Your task to perform on an android device: Search for Italian restaurants on Maps Image 0: 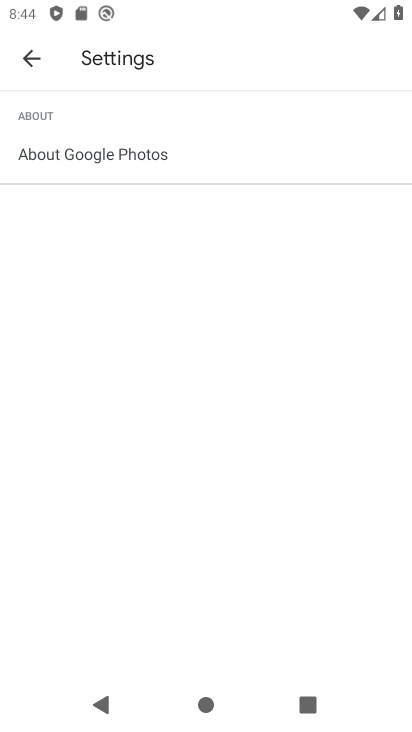
Step 0: press home button
Your task to perform on an android device: Search for Italian restaurants on Maps Image 1: 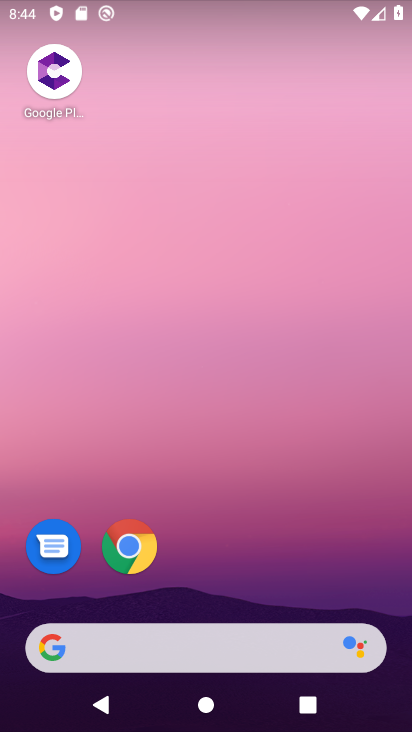
Step 1: drag from (187, 624) to (177, 202)
Your task to perform on an android device: Search for Italian restaurants on Maps Image 2: 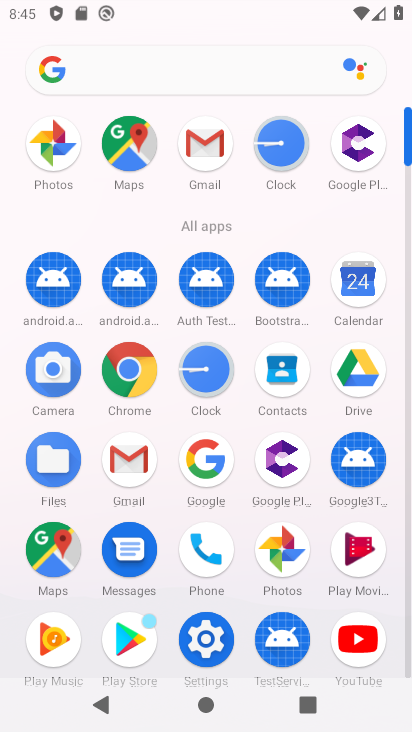
Step 2: click (60, 553)
Your task to perform on an android device: Search for Italian restaurants on Maps Image 3: 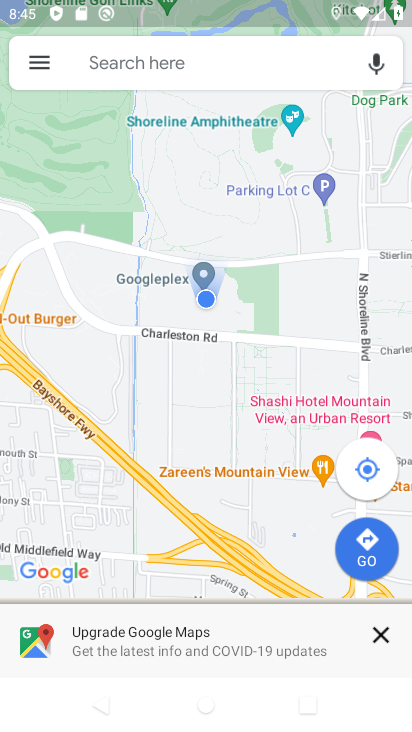
Step 3: click (153, 67)
Your task to perform on an android device: Search for Italian restaurants on Maps Image 4: 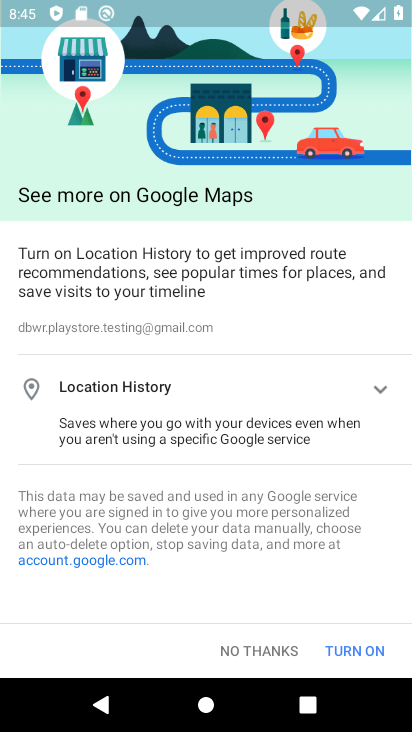
Step 4: press home button
Your task to perform on an android device: Search for Italian restaurants on Maps Image 5: 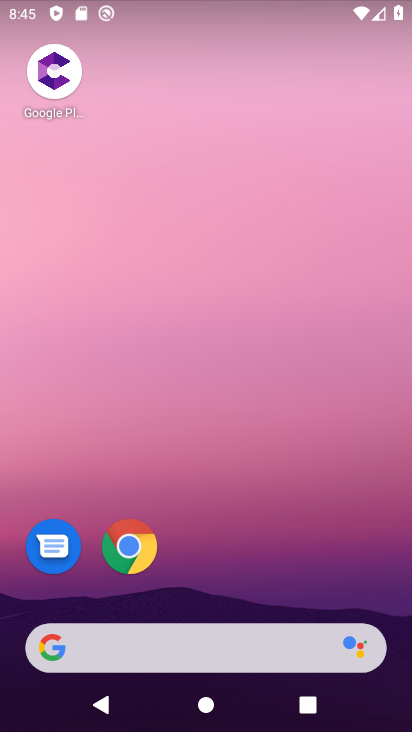
Step 5: drag from (154, 620) to (164, 160)
Your task to perform on an android device: Search for Italian restaurants on Maps Image 6: 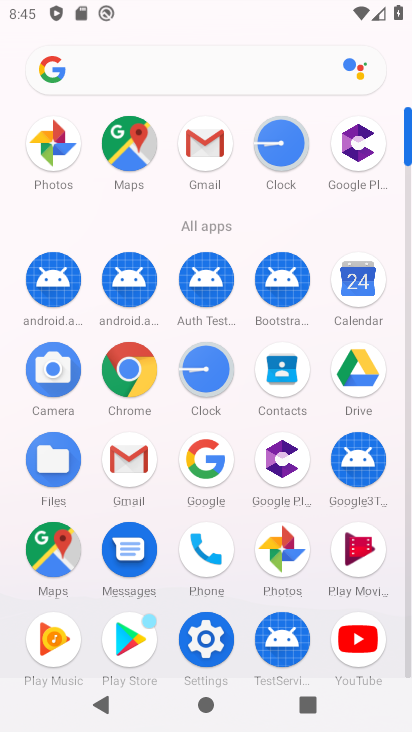
Step 6: click (50, 550)
Your task to perform on an android device: Search for Italian restaurants on Maps Image 7: 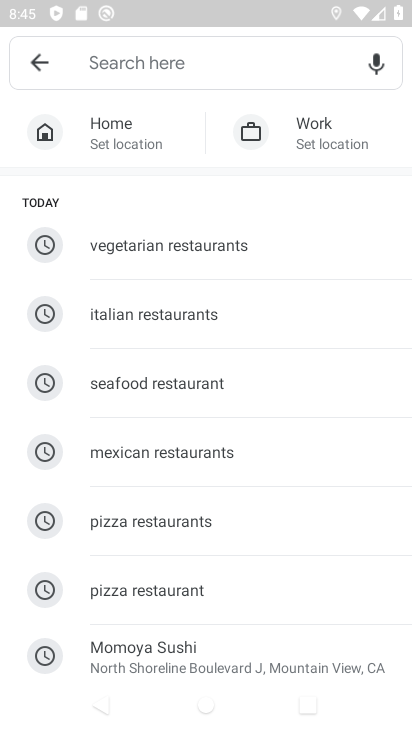
Step 7: click (166, 321)
Your task to perform on an android device: Search for Italian restaurants on Maps Image 8: 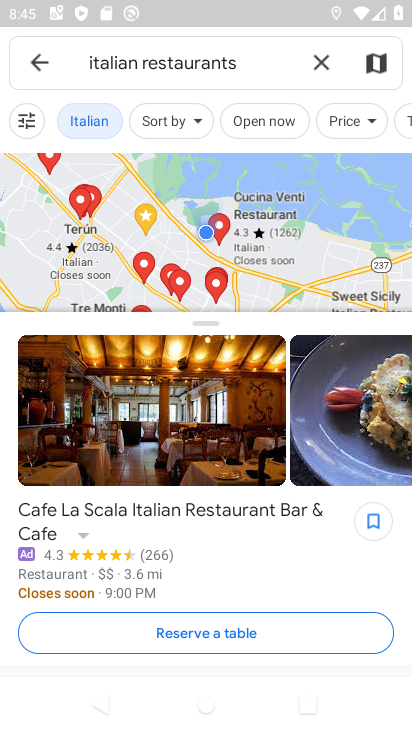
Step 8: task complete